Your task to perform on an android device: toggle airplane mode Image 0: 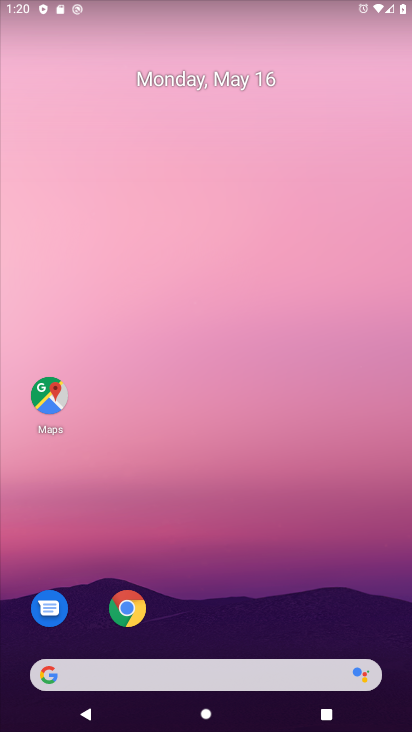
Step 0: drag from (334, 466) to (334, 109)
Your task to perform on an android device: toggle airplane mode Image 1: 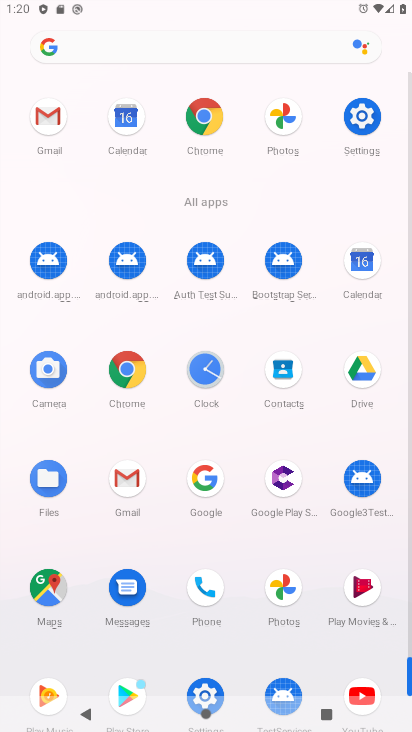
Step 1: click (353, 129)
Your task to perform on an android device: toggle airplane mode Image 2: 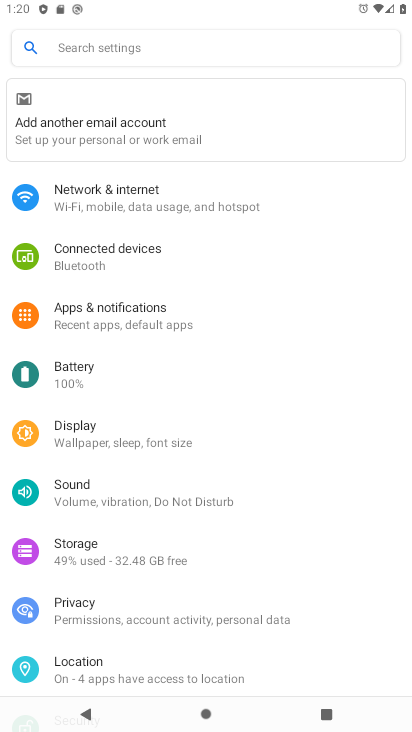
Step 2: click (195, 204)
Your task to perform on an android device: toggle airplane mode Image 3: 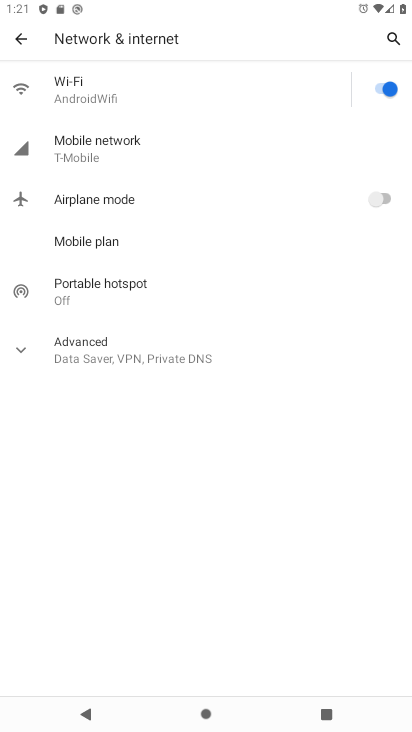
Step 3: click (386, 205)
Your task to perform on an android device: toggle airplane mode Image 4: 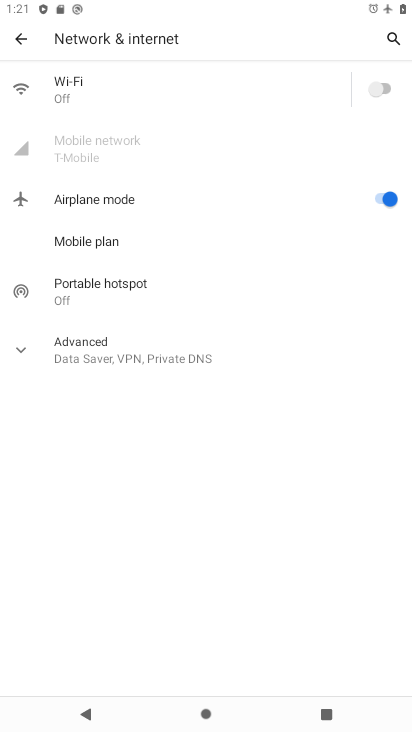
Step 4: task complete